Your task to perform on an android device: turn on translation in the chrome app Image 0: 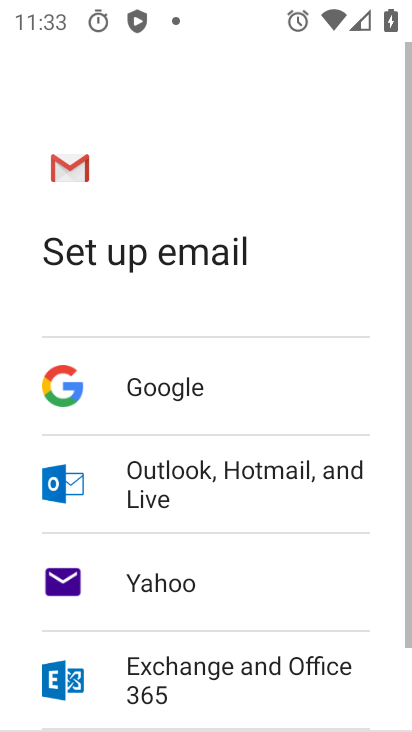
Step 0: press back button
Your task to perform on an android device: turn on translation in the chrome app Image 1: 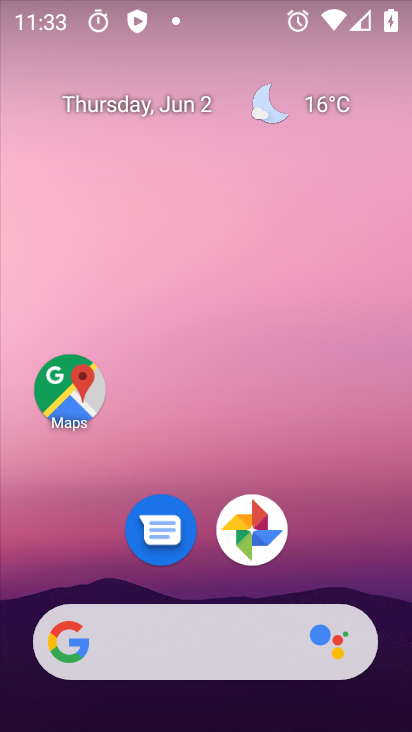
Step 1: drag from (272, 628) to (208, 64)
Your task to perform on an android device: turn on translation in the chrome app Image 2: 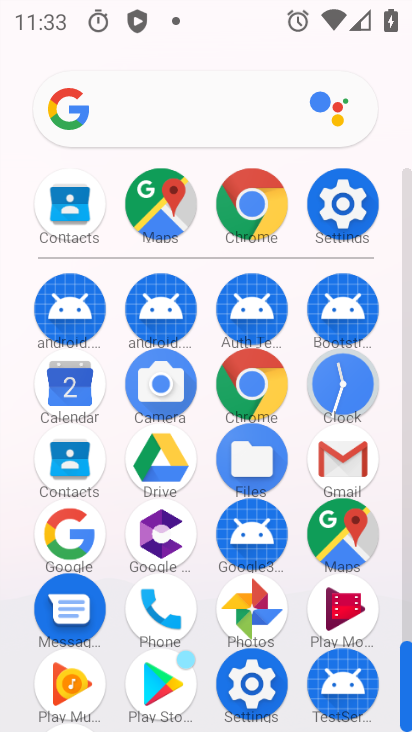
Step 2: click (246, 201)
Your task to perform on an android device: turn on translation in the chrome app Image 3: 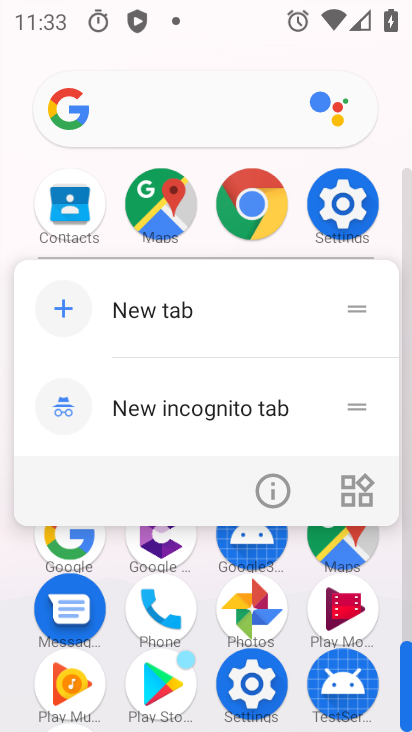
Step 3: click (247, 199)
Your task to perform on an android device: turn on translation in the chrome app Image 4: 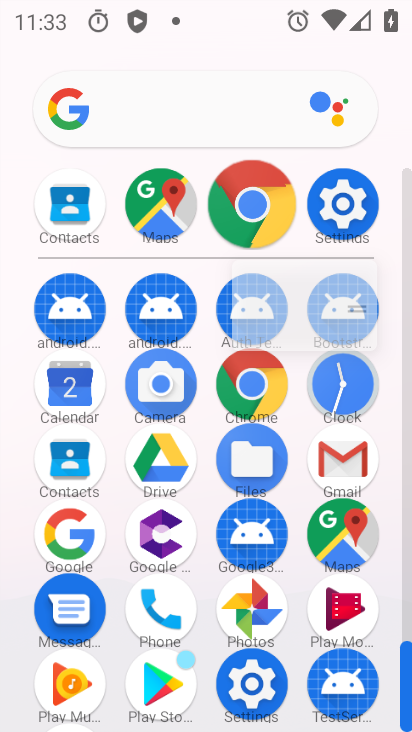
Step 4: click (249, 201)
Your task to perform on an android device: turn on translation in the chrome app Image 5: 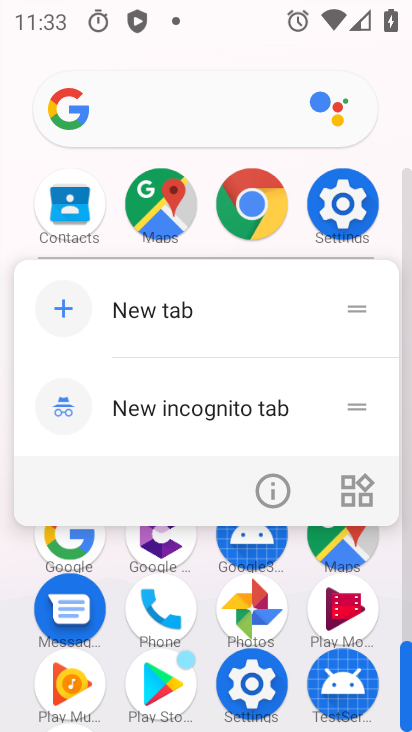
Step 5: click (249, 201)
Your task to perform on an android device: turn on translation in the chrome app Image 6: 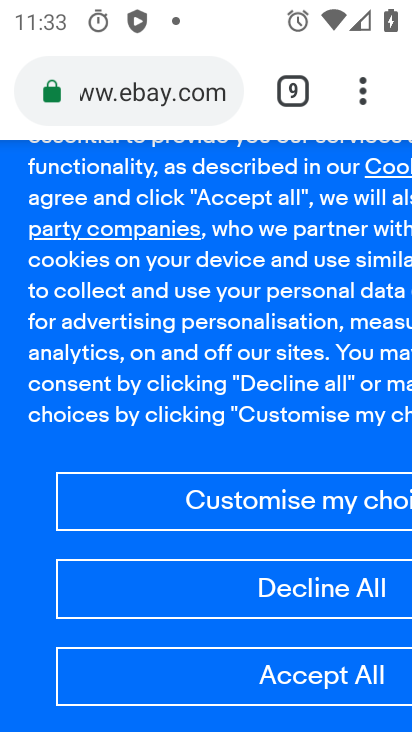
Step 6: drag from (362, 102) to (70, 446)
Your task to perform on an android device: turn on translation in the chrome app Image 7: 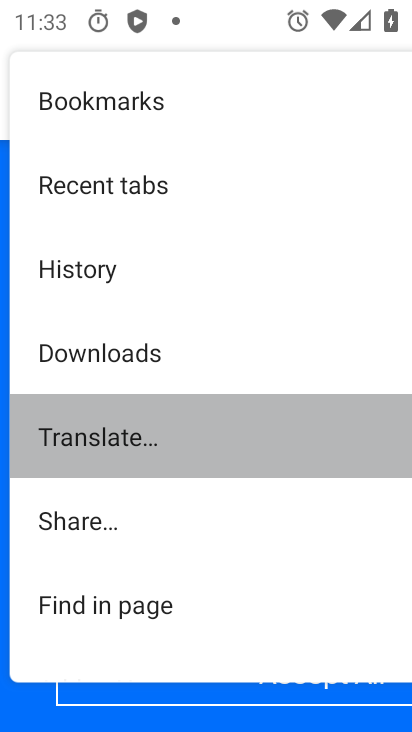
Step 7: click (71, 445)
Your task to perform on an android device: turn on translation in the chrome app Image 8: 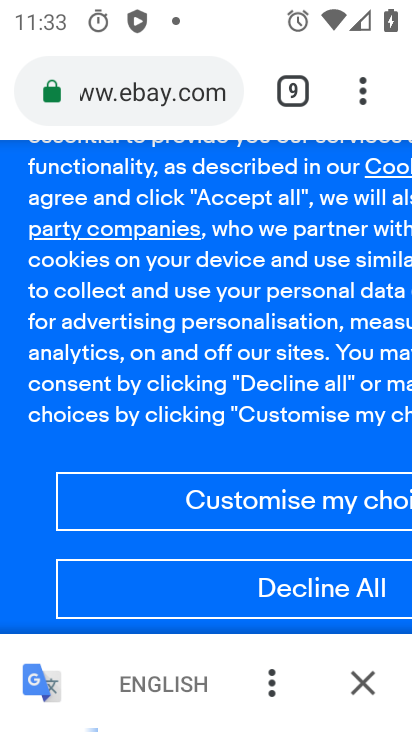
Step 8: drag from (363, 89) to (243, 275)
Your task to perform on an android device: turn on translation in the chrome app Image 9: 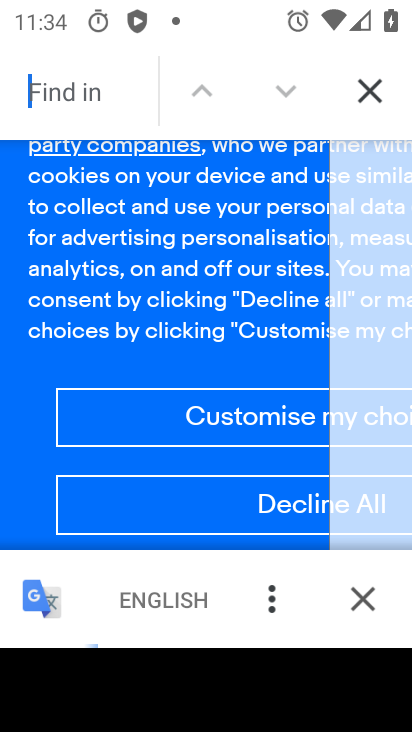
Step 9: click (344, 104)
Your task to perform on an android device: turn on translation in the chrome app Image 10: 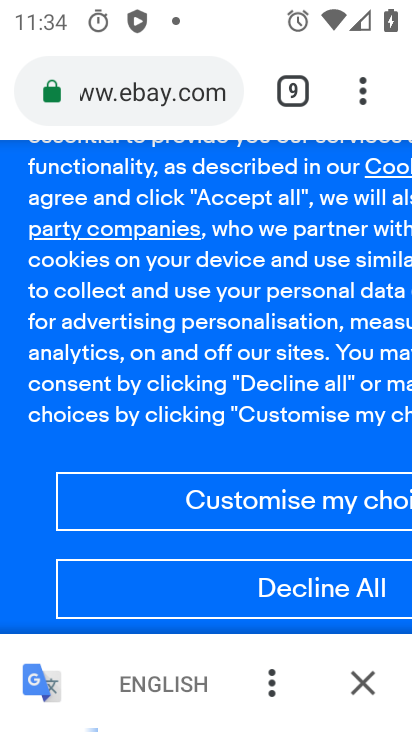
Step 10: drag from (363, 96) to (113, 550)
Your task to perform on an android device: turn on translation in the chrome app Image 11: 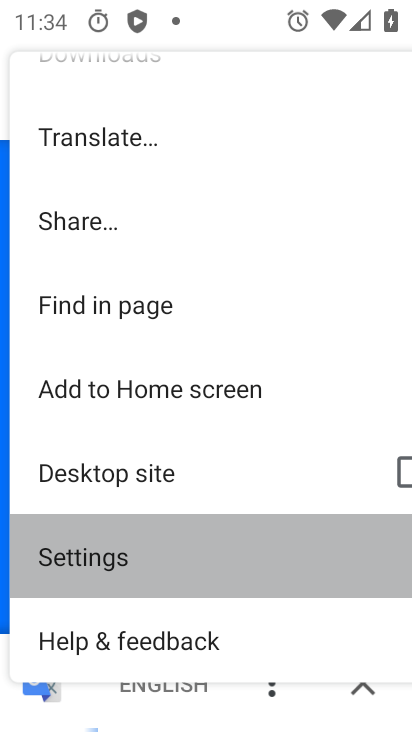
Step 11: click (113, 550)
Your task to perform on an android device: turn on translation in the chrome app Image 12: 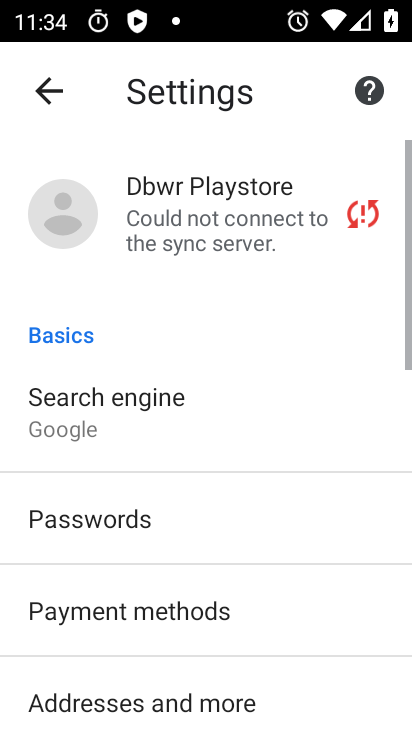
Step 12: drag from (160, 508) to (160, 168)
Your task to perform on an android device: turn on translation in the chrome app Image 13: 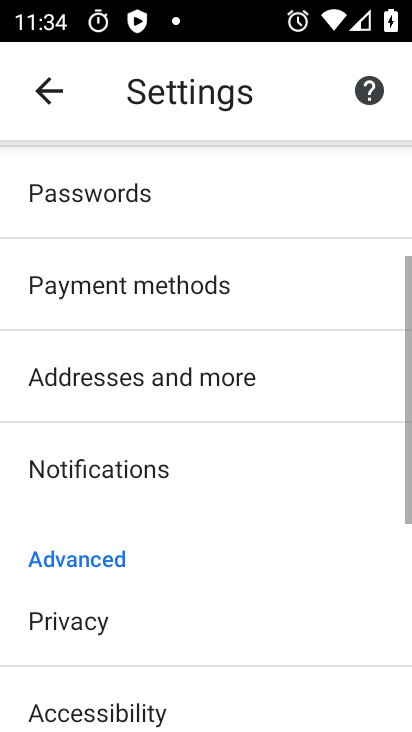
Step 13: drag from (192, 567) to (210, 268)
Your task to perform on an android device: turn on translation in the chrome app Image 14: 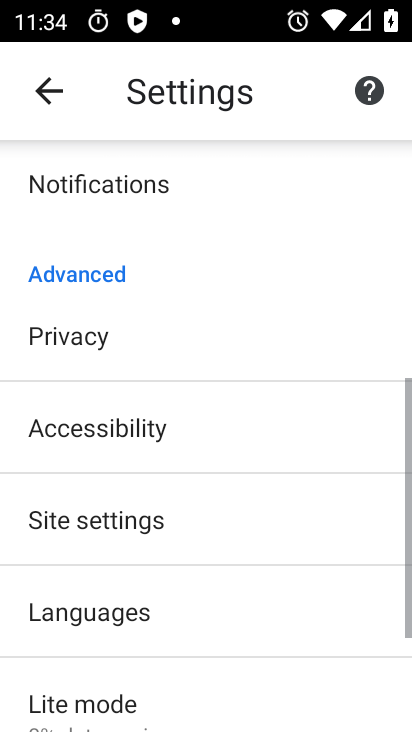
Step 14: drag from (187, 474) to (187, 274)
Your task to perform on an android device: turn on translation in the chrome app Image 15: 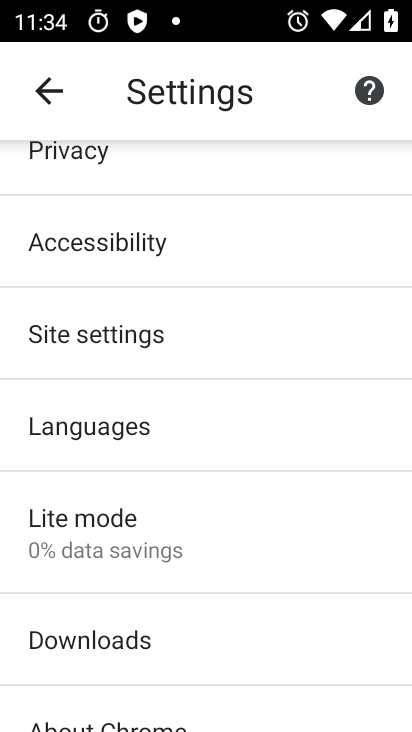
Step 15: click (89, 433)
Your task to perform on an android device: turn on translation in the chrome app Image 16: 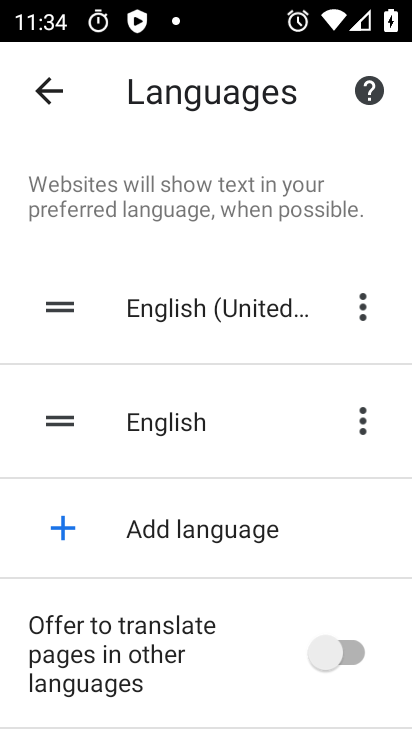
Step 16: click (331, 652)
Your task to perform on an android device: turn on translation in the chrome app Image 17: 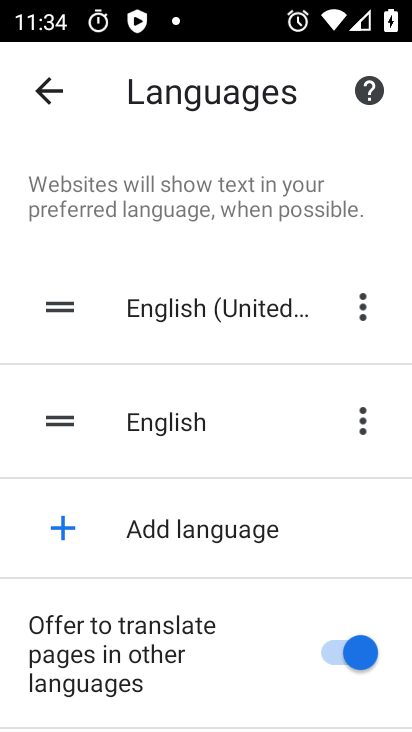
Step 17: task complete